Your task to perform on an android device: Go to Google Image 0: 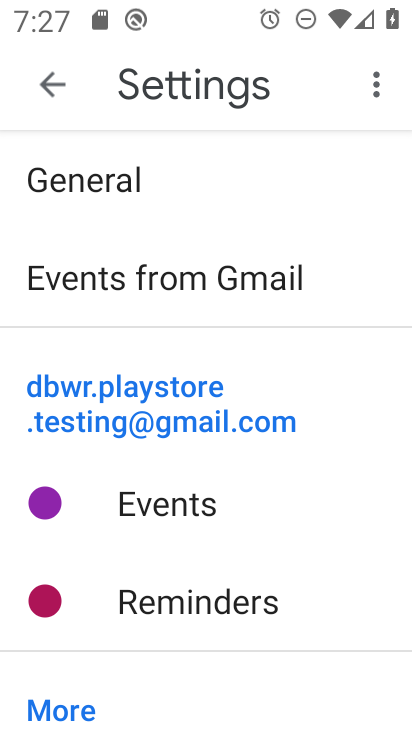
Step 0: press home button
Your task to perform on an android device: Go to Google Image 1: 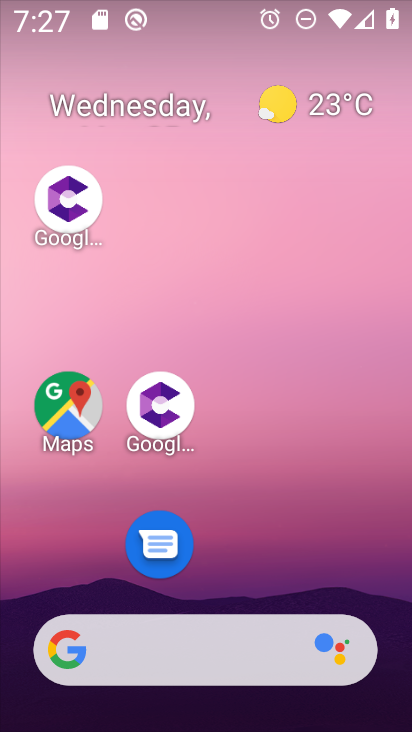
Step 1: click (70, 647)
Your task to perform on an android device: Go to Google Image 2: 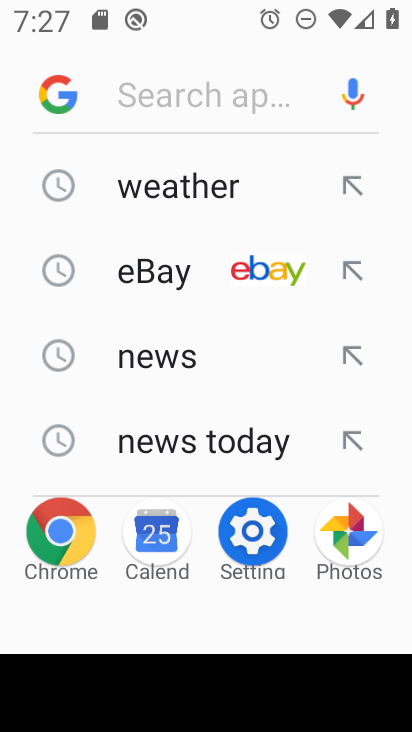
Step 2: click (60, 98)
Your task to perform on an android device: Go to Google Image 3: 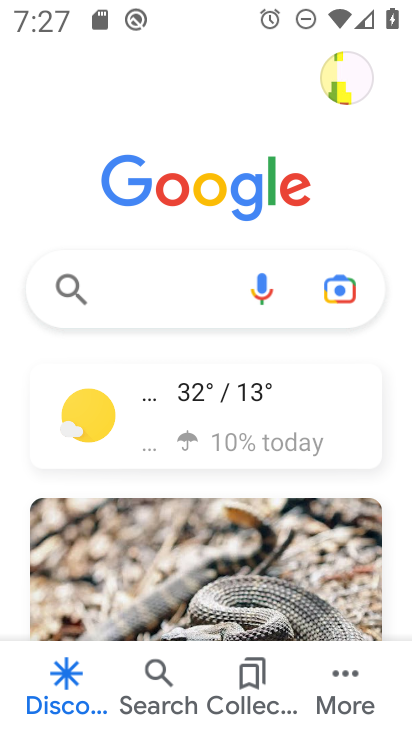
Step 3: task complete